Your task to perform on an android device: delete the emails in spam in the gmail app Image 0: 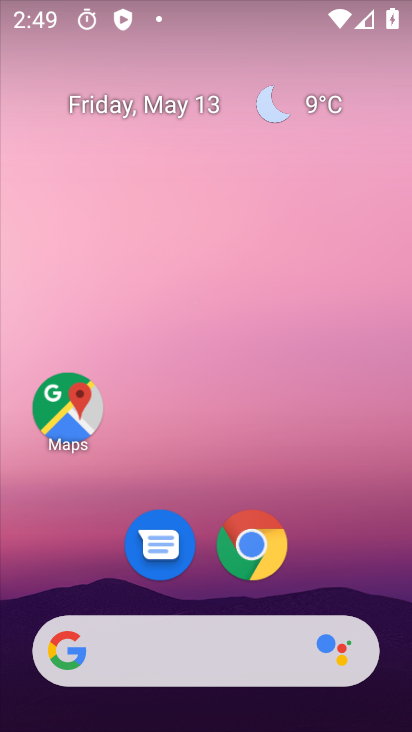
Step 0: drag from (343, 575) to (303, 146)
Your task to perform on an android device: delete the emails in spam in the gmail app Image 1: 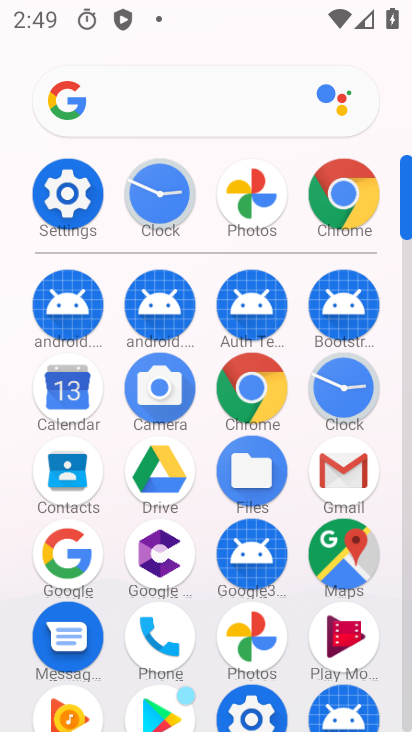
Step 1: click (333, 468)
Your task to perform on an android device: delete the emails in spam in the gmail app Image 2: 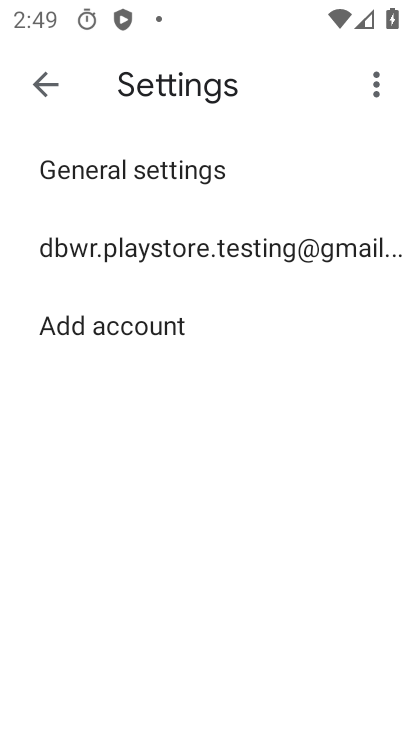
Step 2: click (50, 76)
Your task to perform on an android device: delete the emails in spam in the gmail app Image 3: 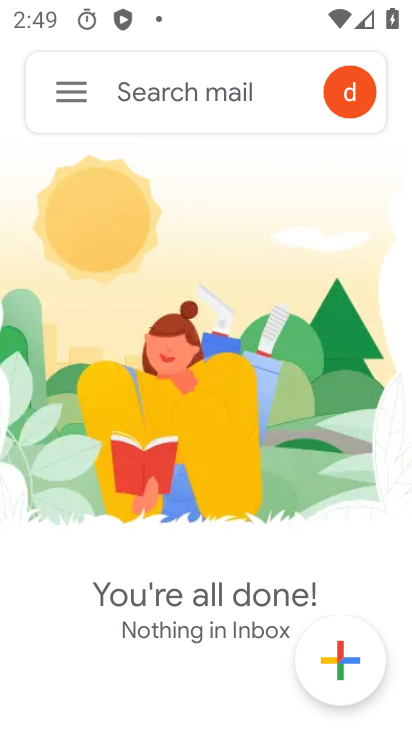
Step 3: click (75, 99)
Your task to perform on an android device: delete the emails in spam in the gmail app Image 4: 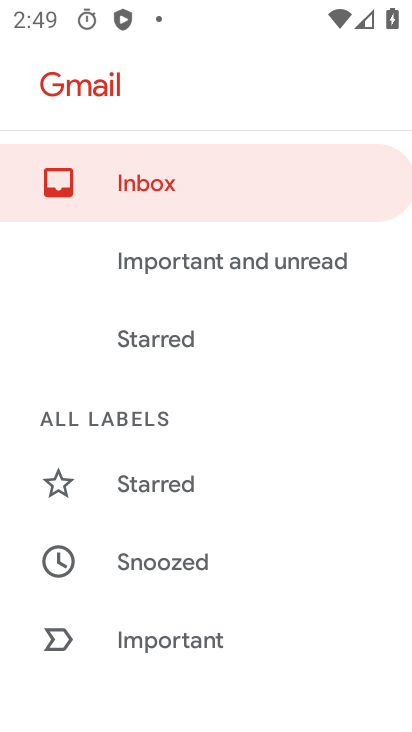
Step 4: drag from (282, 633) to (284, 289)
Your task to perform on an android device: delete the emails in spam in the gmail app Image 5: 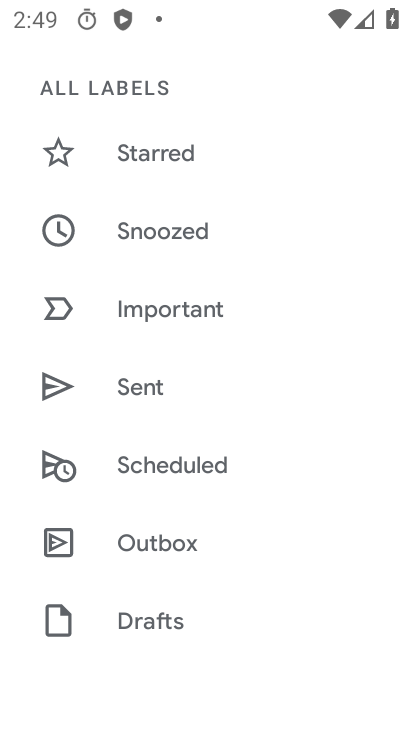
Step 5: drag from (269, 592) to (269, 236)
Your task to perform on an android device: delete the emails in spam in the gmail app Image 6: 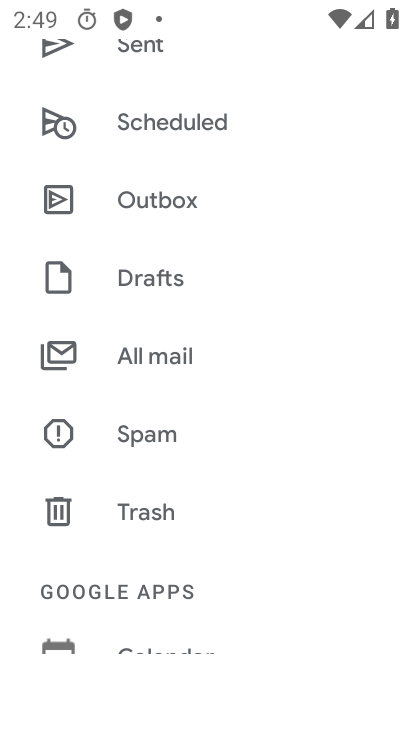
Step 6: click (134, 430)
Your task to perform on an android device: delete the emails in spam in the gmail app Image 7: 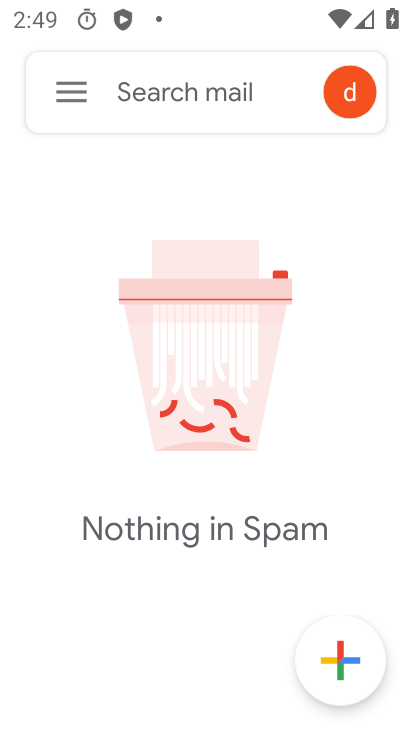
Step 7: task complete